Your task to perform on an android device: Is it going to rain this weekend? Image 0: 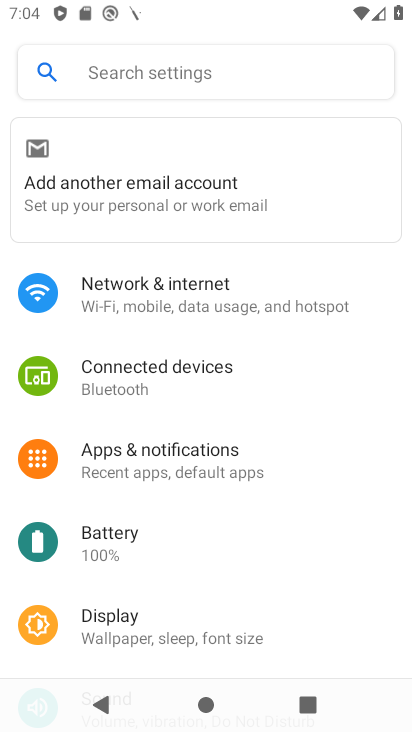
Step 0: press home button
Your task to perform on an android device: Is it going to rain this weekend? Image 1: 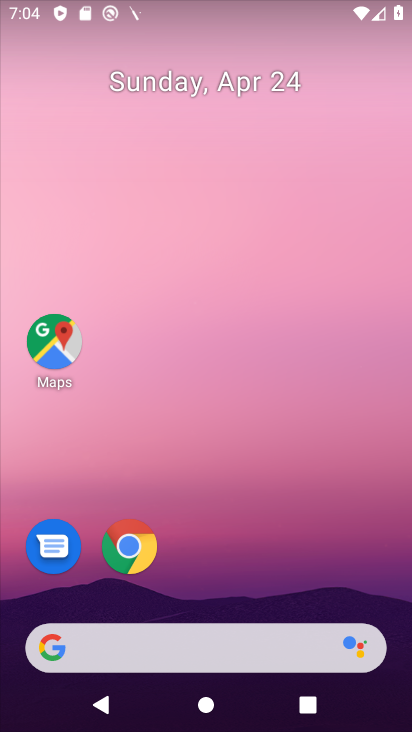
Step 1: drag from (8, 199) to (405, 264)
Your task to perform on an android device: Is it going to rain this weekend? Image 2: 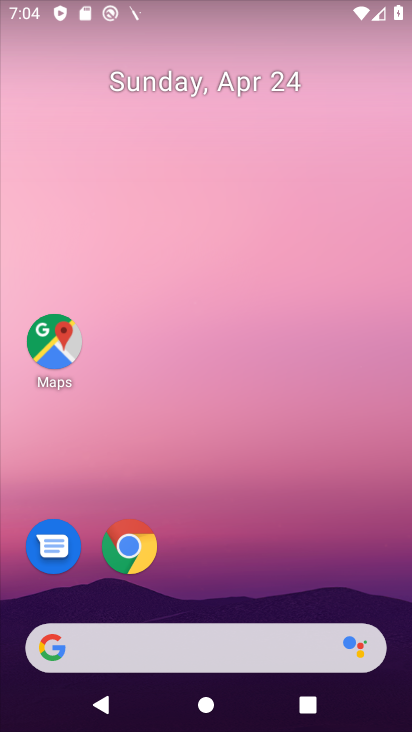
Step 2: drag from (4, 201) to (397, 273)
Your task to perform on an android device: Is it going to rain this weekend? Image 3: 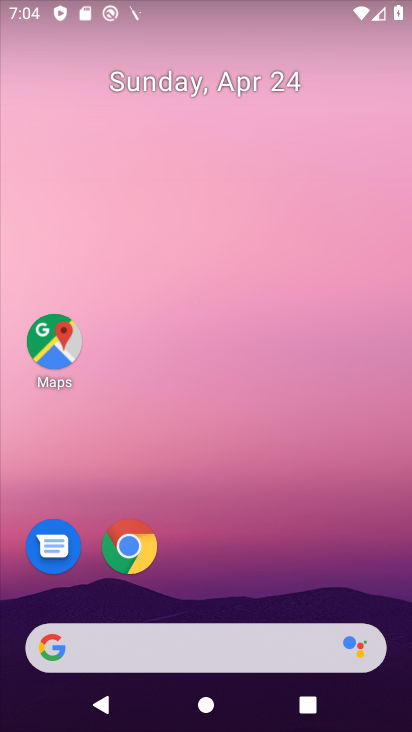
Step 3: drag from (1, 166) to (411, 250)
Your task to perform on an android device: Is it going to rain this weekend? Image 4: 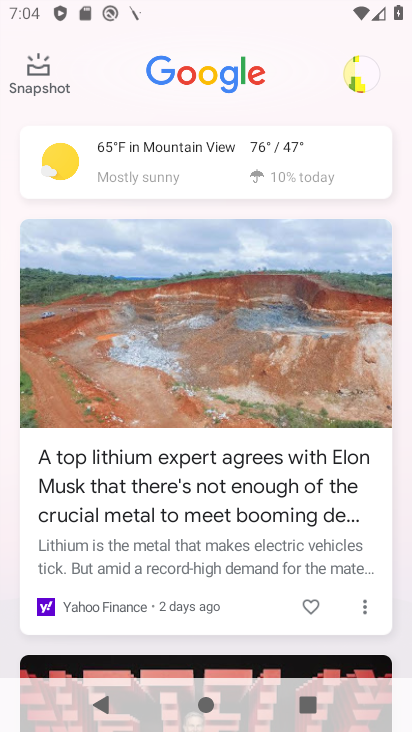
Step 4: click (254, 149)
Your task to perform on an android device: Is it going to rain this weekend? Image 5: 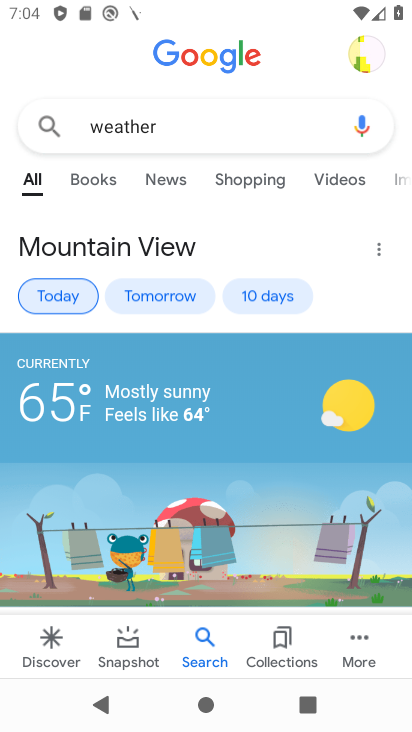
Step 5: click (253, 295)
Your task to perform on an android device: Is it going to rain this weekend? Image 6: 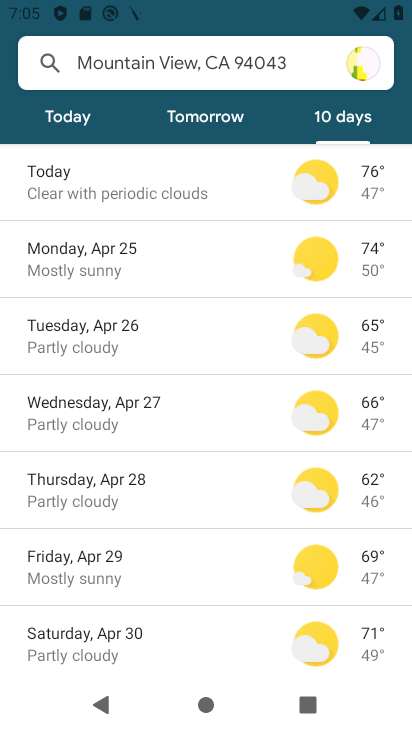
Step 6: drag from (200, 632) to (204, 445)
Your task to perform on an android device: Is it going to rain this weekend? Image 7: 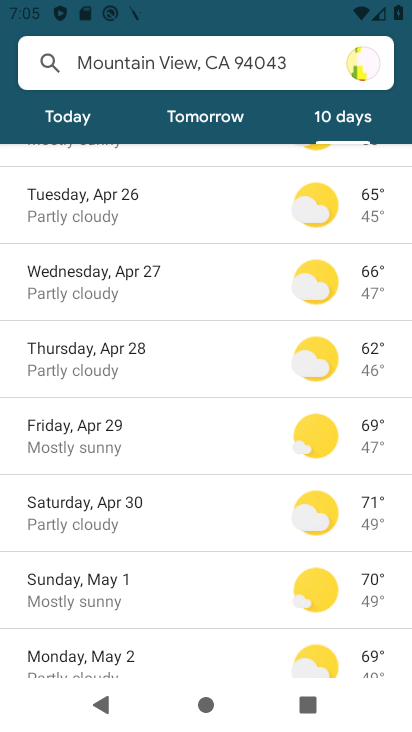
Step 7: click (99, 505)
Your task to perform on an android device: Is it going to rain this weekend? Image 8: 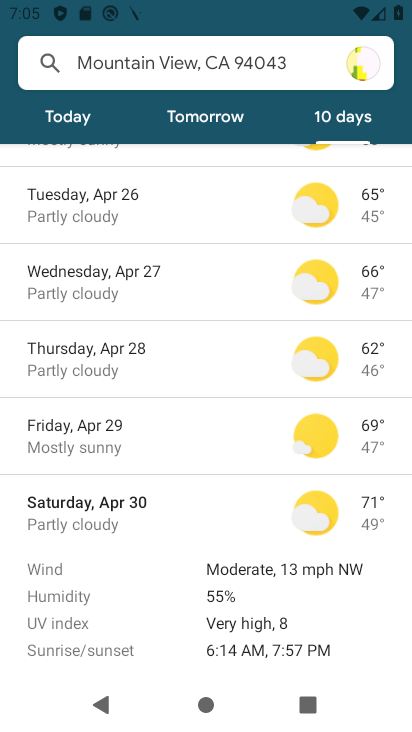
Step 8: task complete